Your task to perform on an android device: Go to Android settings Image 0: 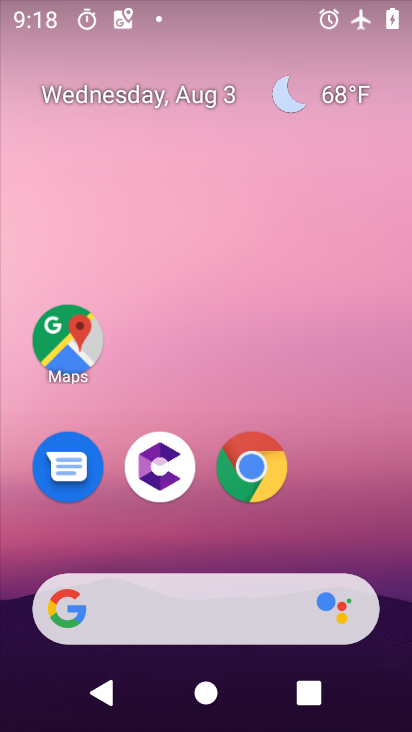
Step 0: drag from (343, 511) to (376, 48)
Your task to perform on an android device: Go to Android settings Image 1: 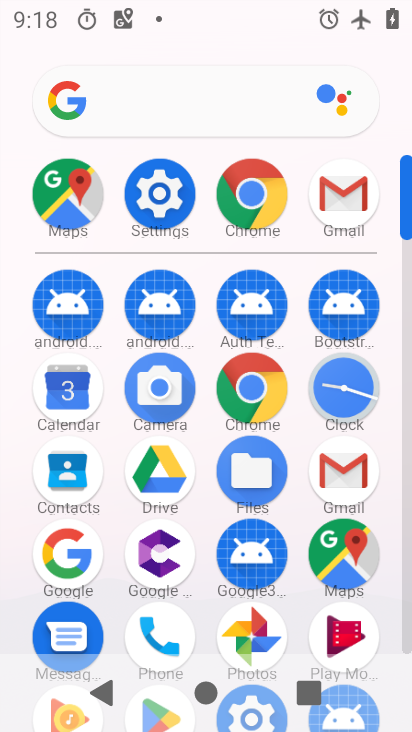
Step 1: click (157, 200)
Your task to perform on an android device: Go to Android settings Image 2: 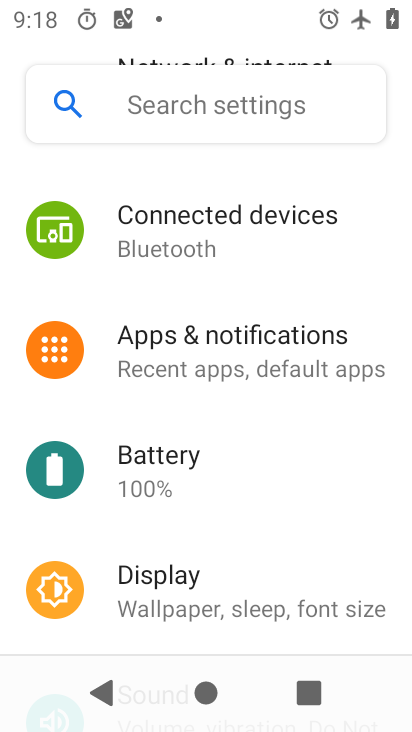
Step 2: task complete